Your task to perform on an android device: stop showing notifications on the lock screen Image 0: 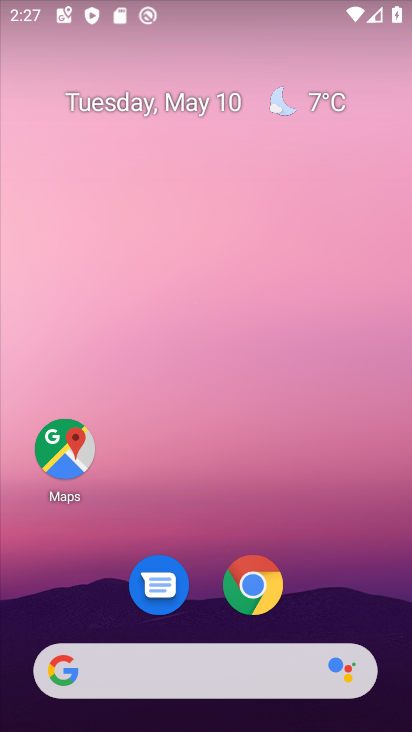
Step 0: drag from (359, 501) to (312, 50)
Your task to perform on an android device: stop showing notifications on the lock screen Image 1: 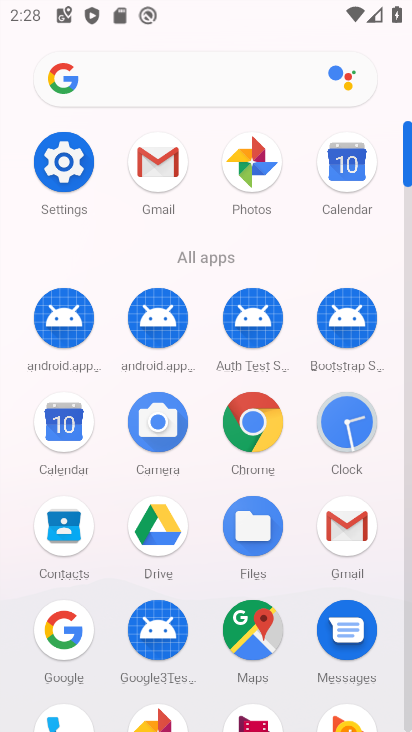
Step 1: click (71, 157)
Your task to perform on an android device: stop showing notifications on the lock screen Image 2: 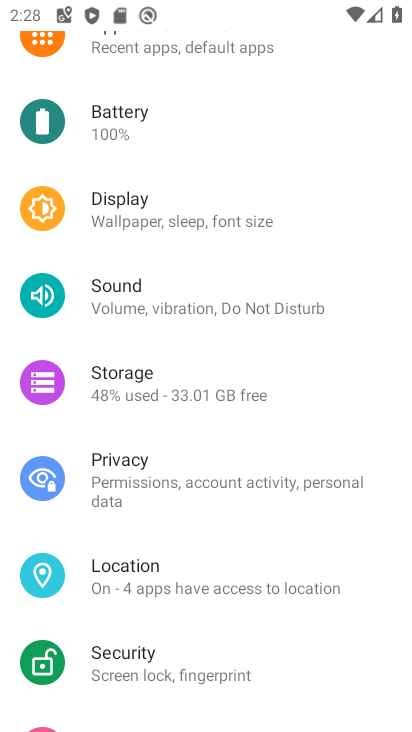
Step 2: drag from (214, 283) to (220, 508)
Your task to perform on an android device: stop showing notifications on the lock screen Image 3: 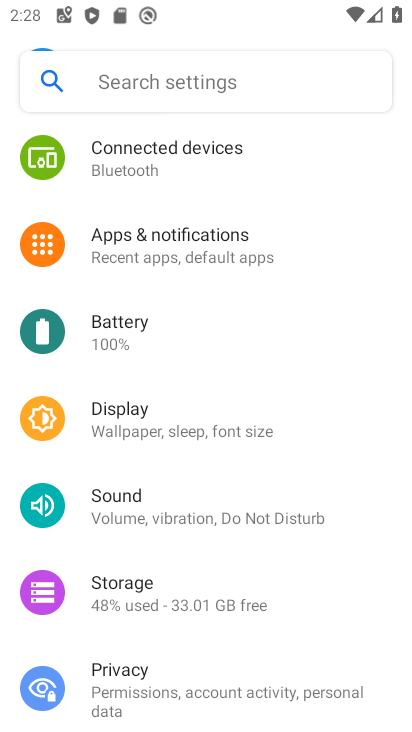
Step 3: click (228, 240)
Your task to perform on an android device: stop showing notifications on the lock screen Image 4: 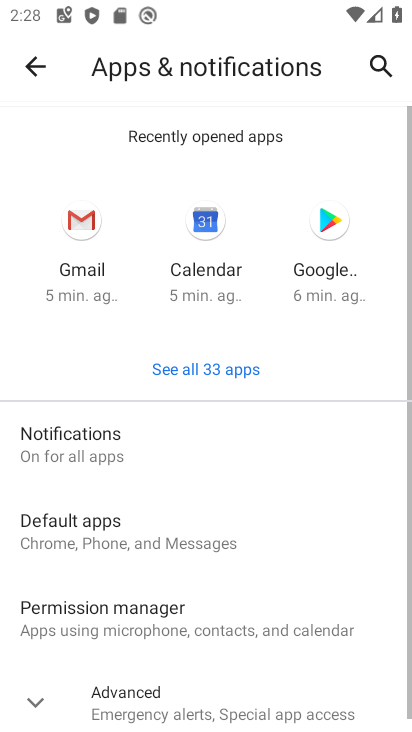
Step 4: click (89, 450)
Your task to perform on an android device: stop showing notifications on the lock screen Image 5: 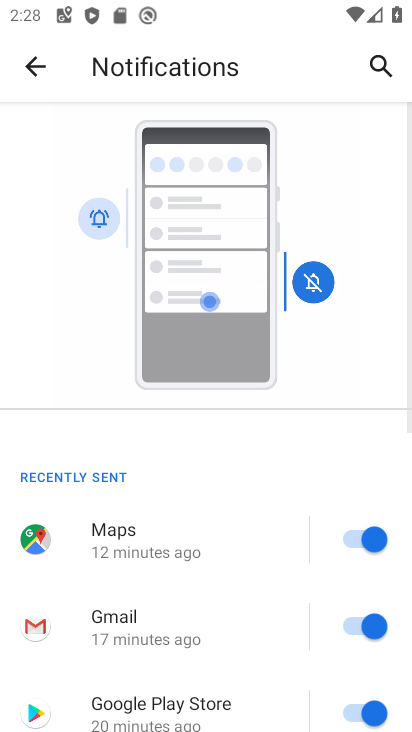
Step 5: drag from (229, 603) to (261, 127)
Your task to perform on an android device: stop showing notifications on the lock screen Image 6: 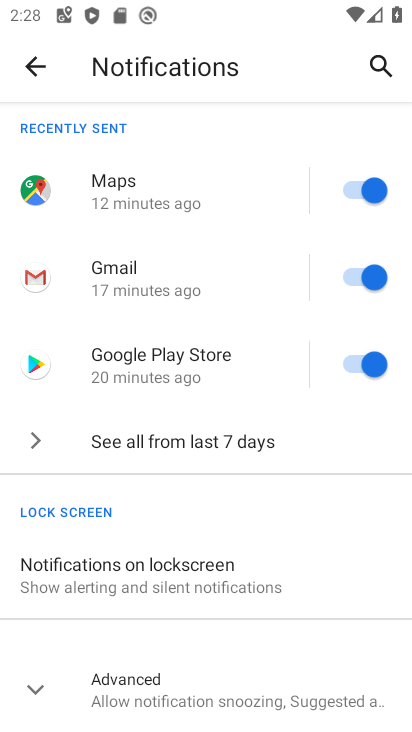
Step 6: click (203, 572)
Your task to perform on an android device: stop showing notifications on the lock screen Image 7: 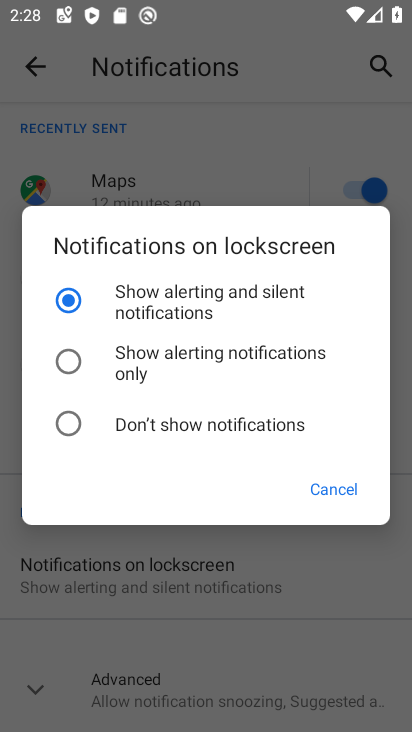
Step 7: click (68, 417)
Your task to perform on an android device: stop showing notifications on the lock screen Image 8: 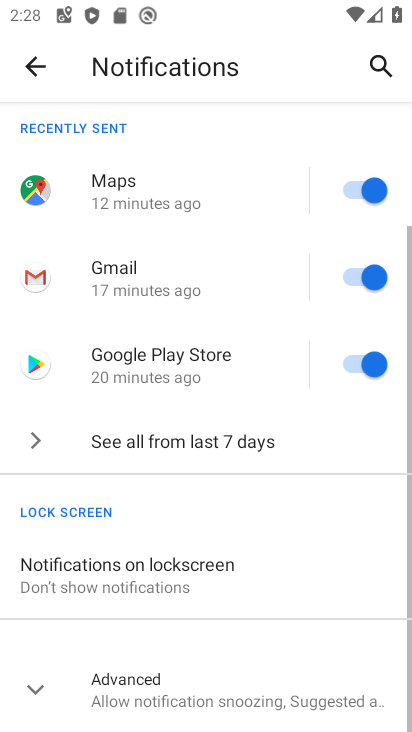
Step 8: task complete